Your task to perform on an android device: turn on location history Image 0: 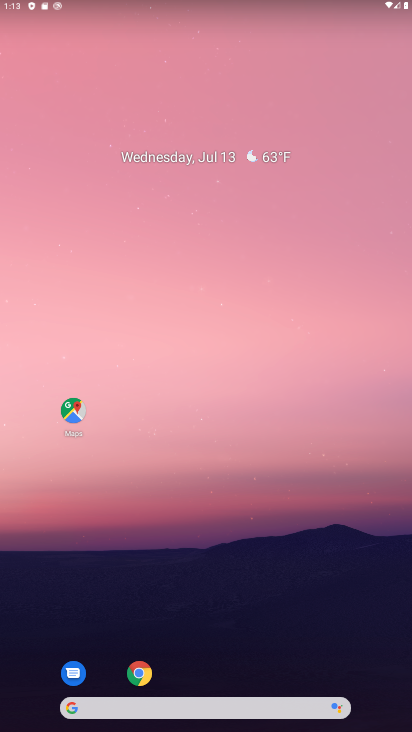
Step 0: drag from (224, 669) to (239, 297)
Your task to perform on an android device: turn on location history Image 1: 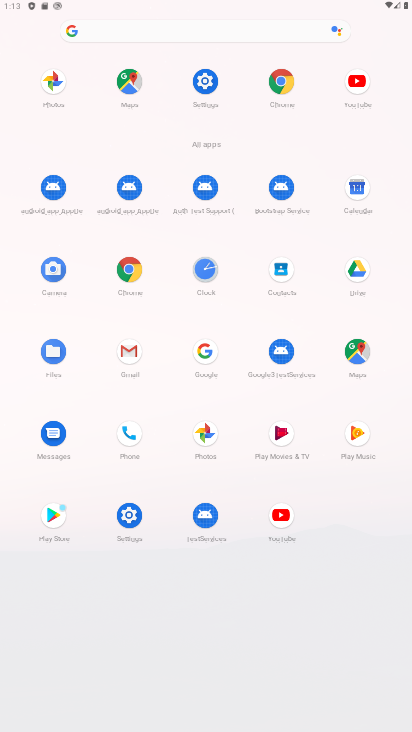
Step 1: click (203, 82)
Your task to perform on an android device: turn on location history Image 2: 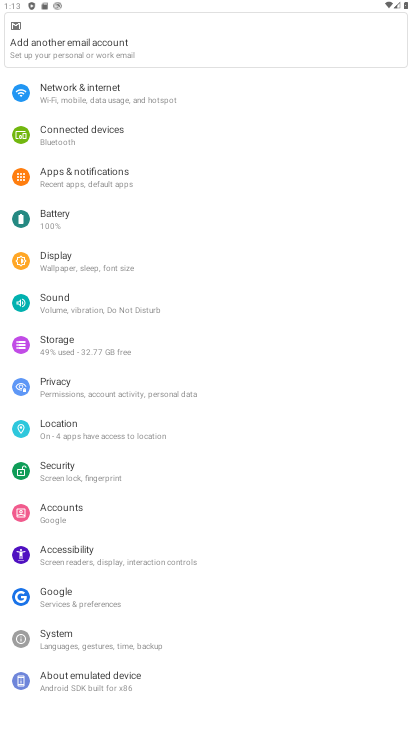
Step 2: click (88, 427)
Your task to perform on an android device: turn on location history Image 3: 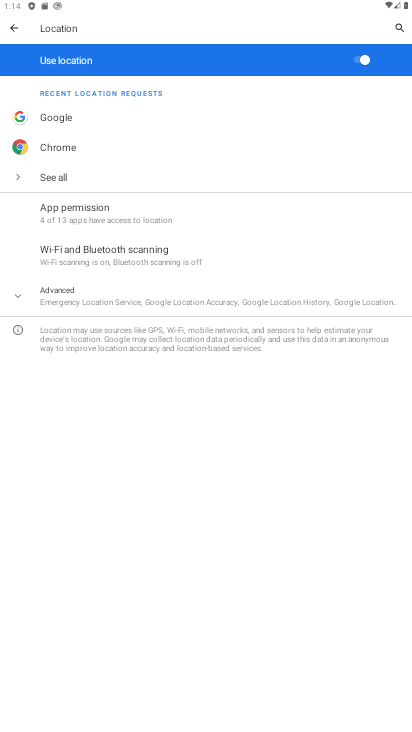
Step 3: click (184, 296)
Your task to perform on an android device: turn on location history Image 4: 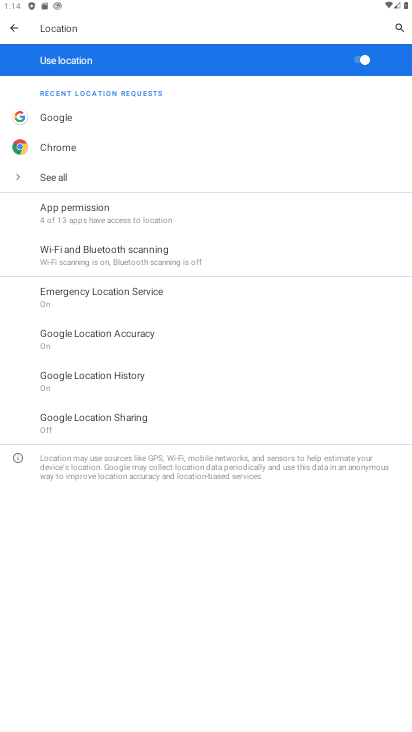
Step 4: click (126, 389)
Your task to perform on an android device: turn on location history Image 5: 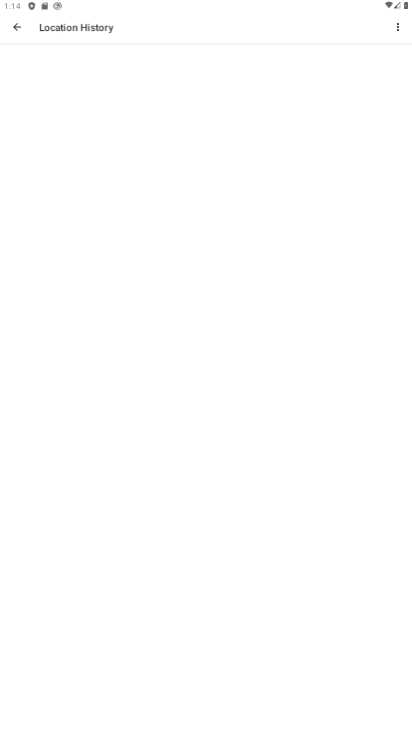
Step 5: task complete